Your task to perform on an android device: Go to ESPN.com Image 0: 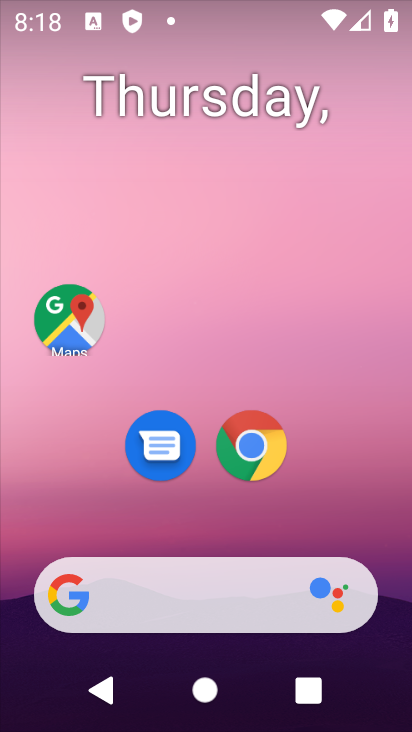
Step 0: click (249, 438)
Your task to perform on an android device: Go to ESPN.com Image 1: 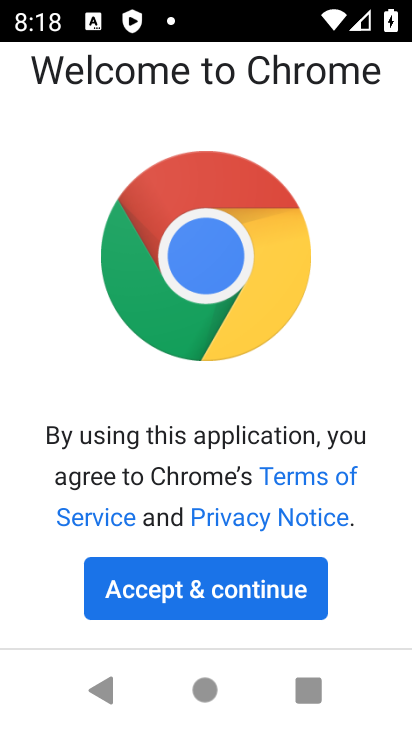
Step 1: click (212, 587)
Your task to perform on an android device: Go to ESPN.com Image 2: 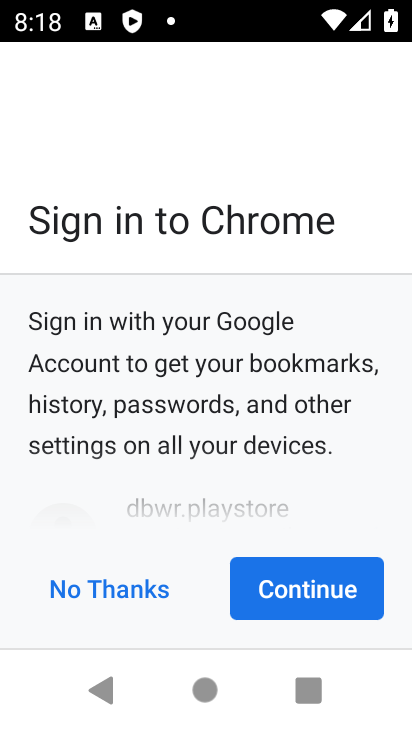
Step 2: click (152, 588)
Your task to perform on an android device: Go to ESPN.com Image 3: 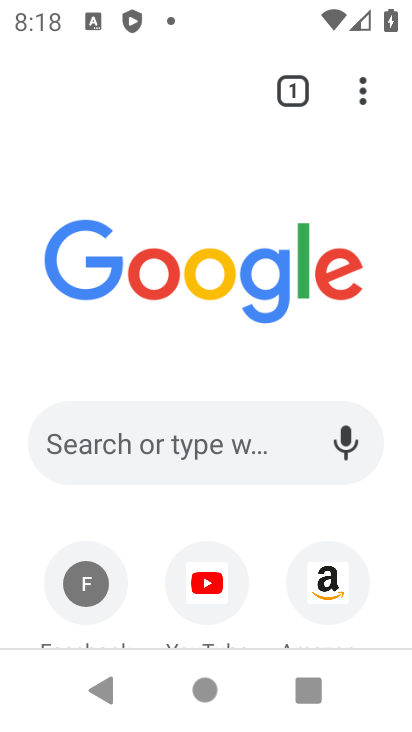
Step 3: drag from (41, 600) to (188, 195)
Your task to perform on an android device: Go to ESPN.com Image 4: 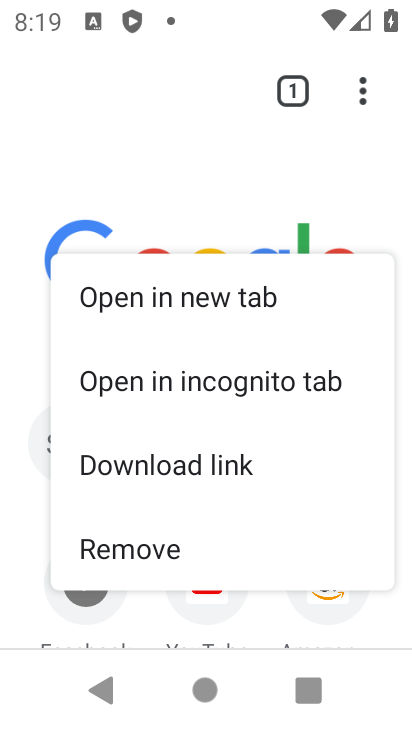
Step 4: click (161, 183)
Your task to perform on an android device: Go to ESPN.com Image 5: 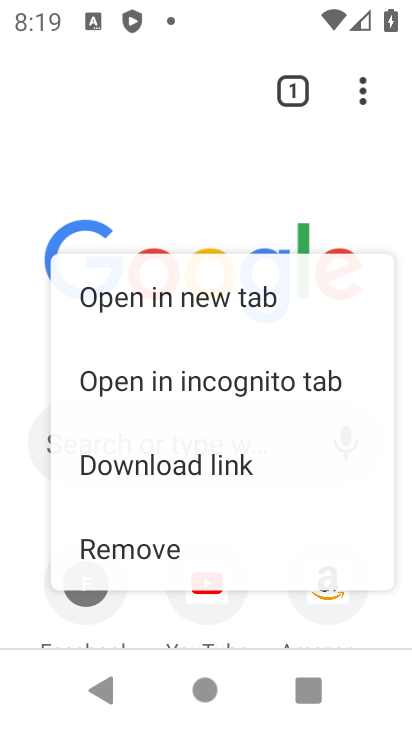
Step 5: click (161, 183)
Your task to perform on an android device: Go to ESPN.com Image 6: 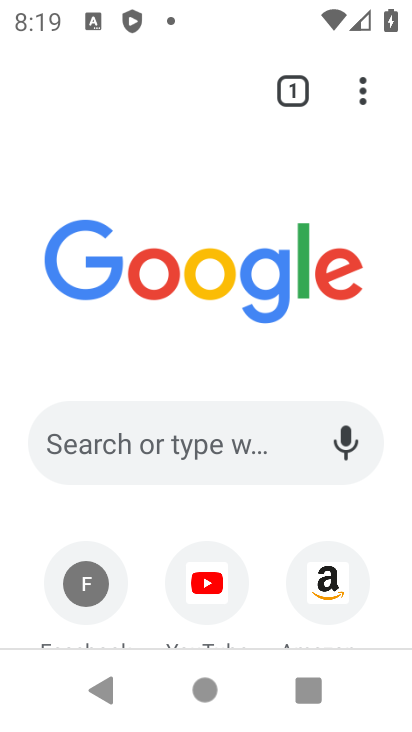
Step 6: drag from (27, 397) to (138, 159)
Your task to perform on an android device: Go to ESPN.com Image 7: 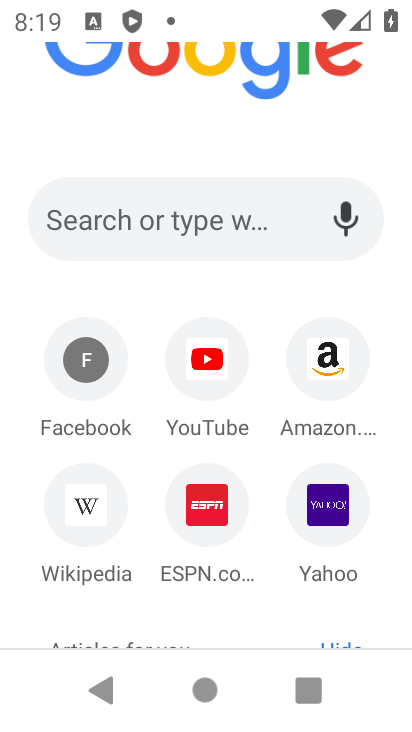
Step 7: click (194, 509)
Your task to perform on an android device: Go to ESPN.com Image 8: 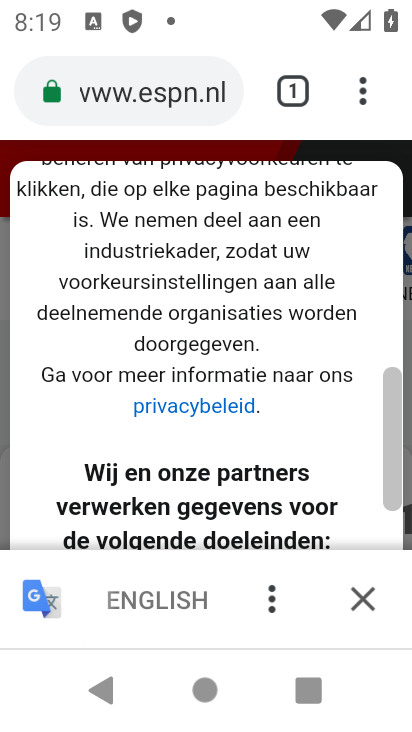
Step 8: click (371, 603)
Your task to perform on an android device: Go to ESPN.com Image 9: 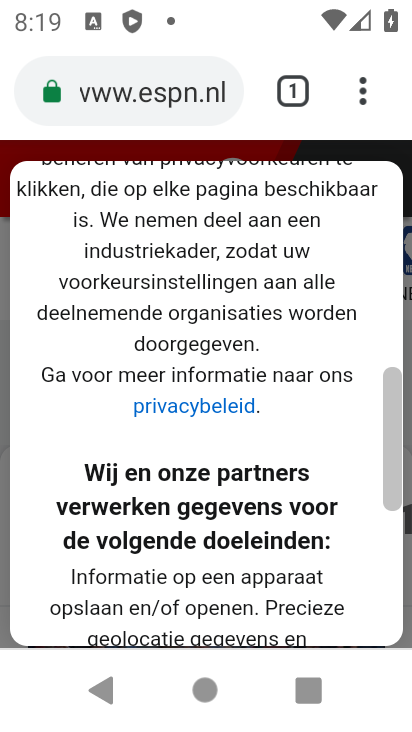
Step 9: task complete